Your task to perform on an android device: change timer sound Image 0: 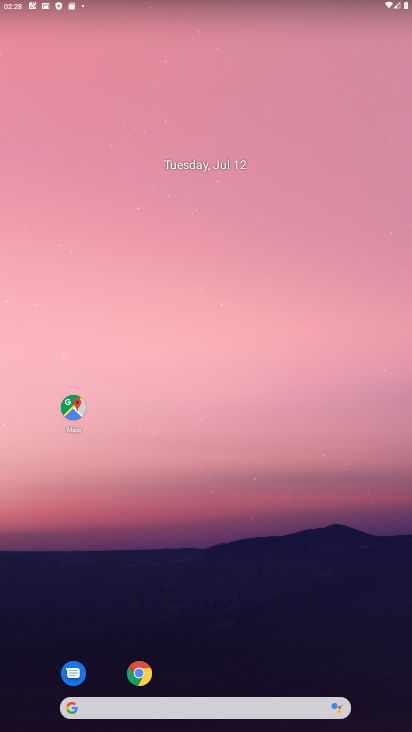
Step 0: press home button
Your task to perform on an android device: change timer sound Image 1: 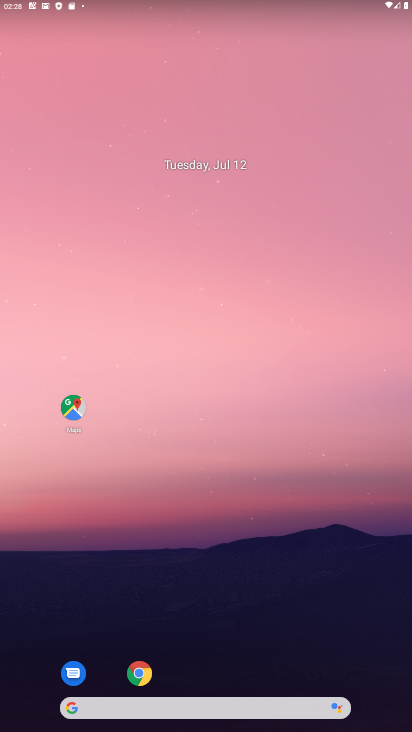
Step 1: drag from (278, 539) to (238, 22)
Your task to perform on an android device: change timer sound Image 2: 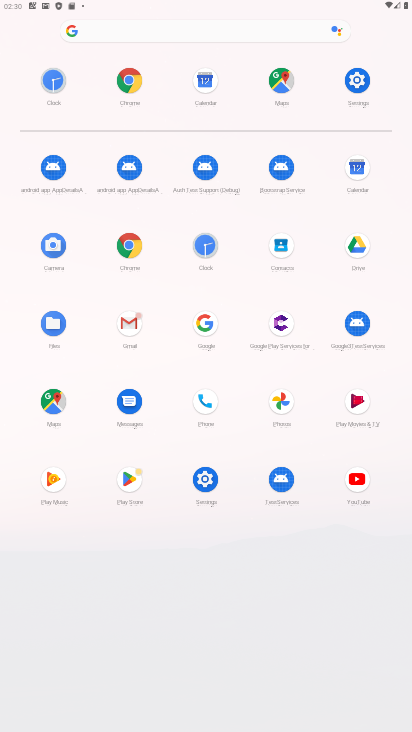
Step 2: click (208, 244)
Your task to perform on an android device: change timer sound Image 3: 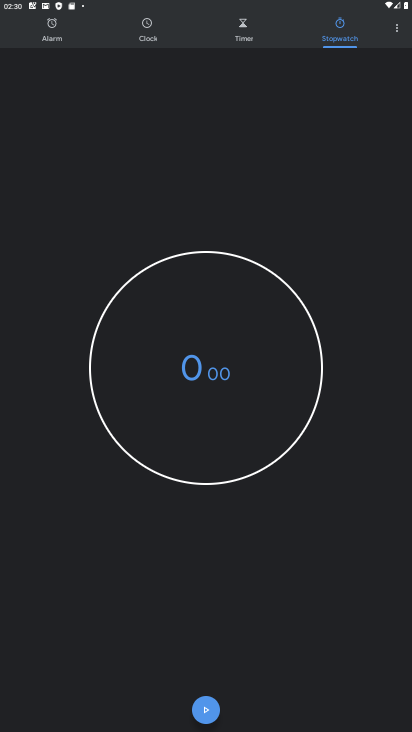
Step 3: click (400, 26)
Your task to perform on an android device: change timer sound Image 4: 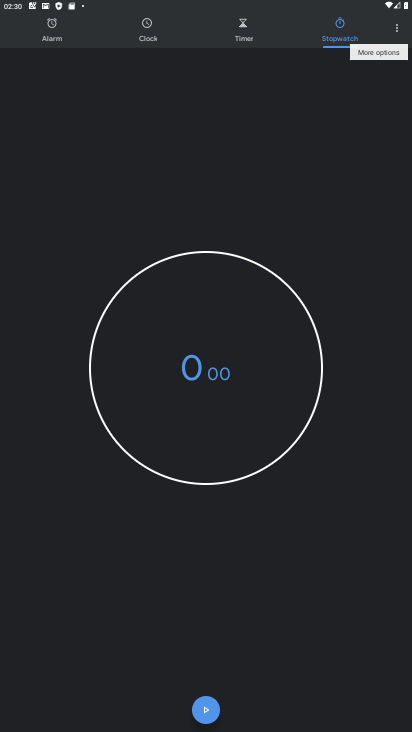
Step 4: click (399, 27)
Your task to perform on an android device: change timer sound Image 5: 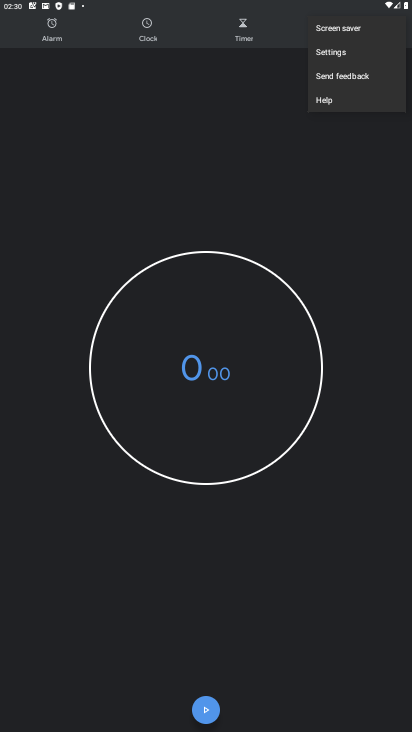
Step 5: click (342, 51)
Your task to perform on an android device: change timer sound Image 6: 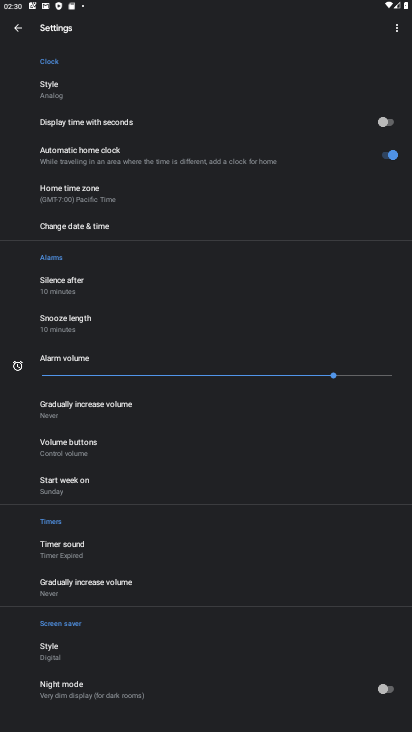
Step 6: click (58, 532)
Your task to perform on an android device: change timer sound Image 7: 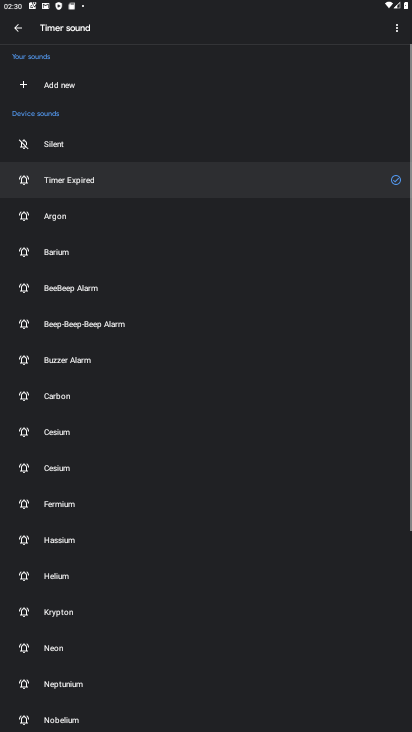
Step 7: click (40, 217)
Your task to perform on an android device: change timer sound Image 8: 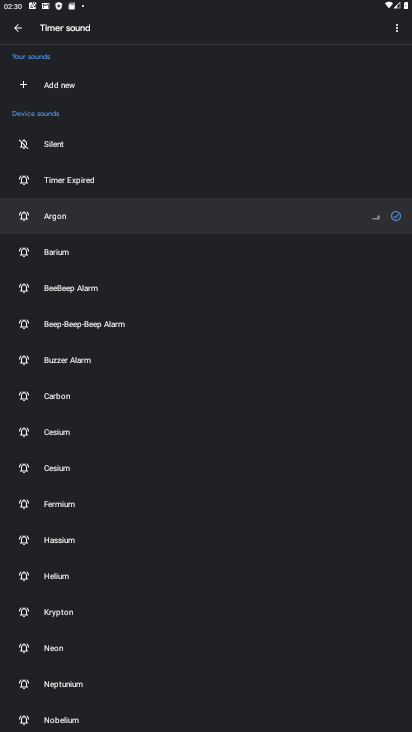
Step 8: task complete